Your task to perform on an android device: refresh tabs in the chrome app Image 0: 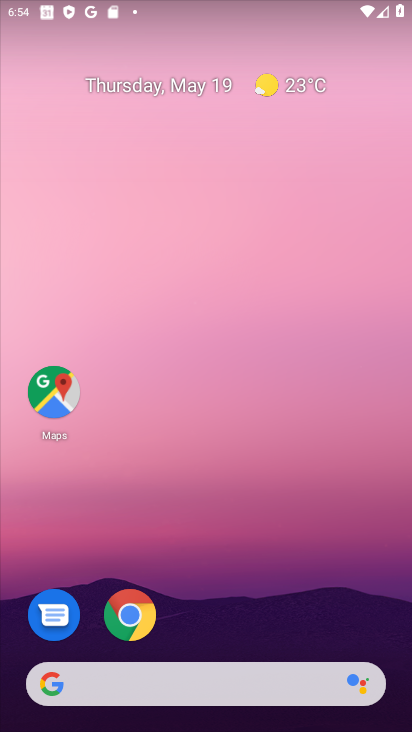
Step 0: drag from (352, 625) to (183, 74)
Your task to perform on an android device: refresh tabs in the chrome app Image 1: 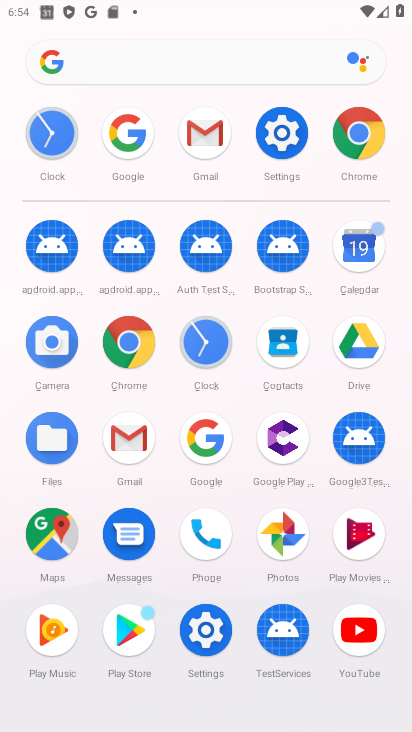
Step 1: click (378, 150)
Your task to perform on an android device: refresh tabs in the chrome app Image 2: 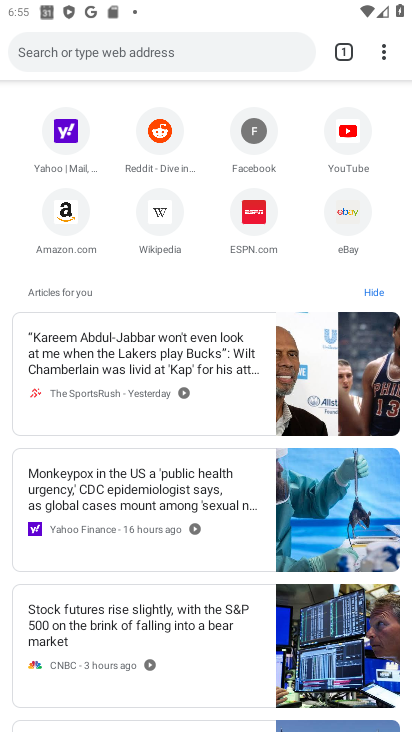
Step 2: click (390, 53)
Your task to perform on an android device: refresh tabs in the chrome app Image 3: 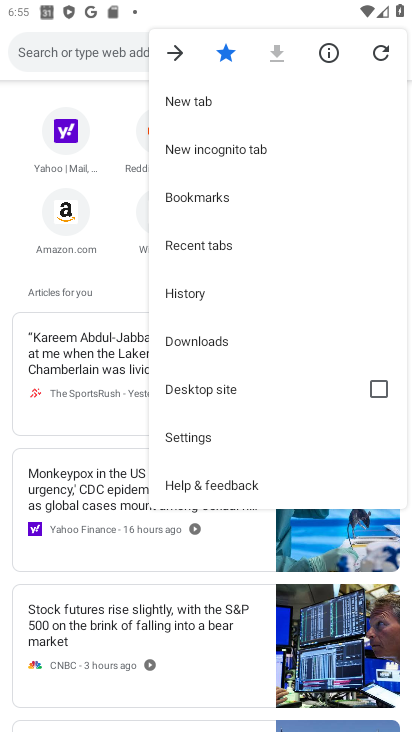
Step 3: click (381, 44)
Your task to perform on an android device: refresh tabs in the chrome app Image 4: 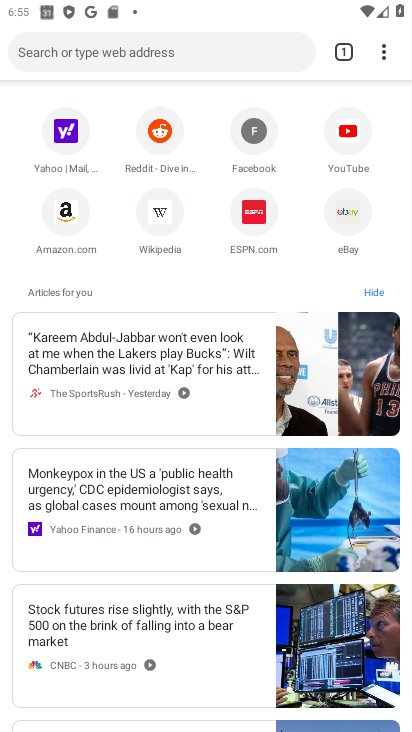
Step 4: task complete